Your task to perform on an android device: open app "Pinterest" Image 0: 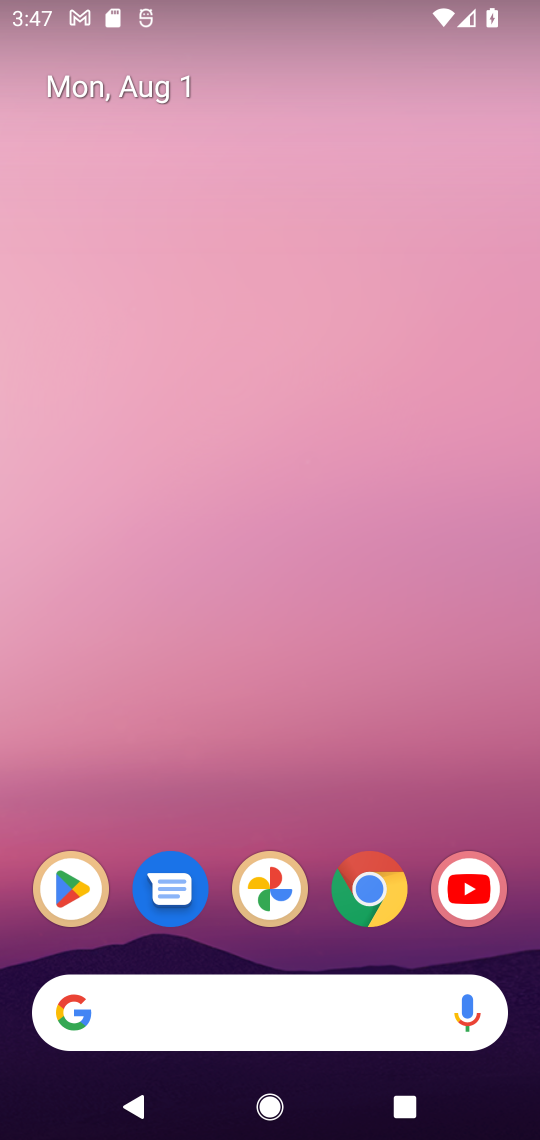
Step 0: click (85, 884)
Your task to perform on an android device: open app "Pinterest" Image 1: 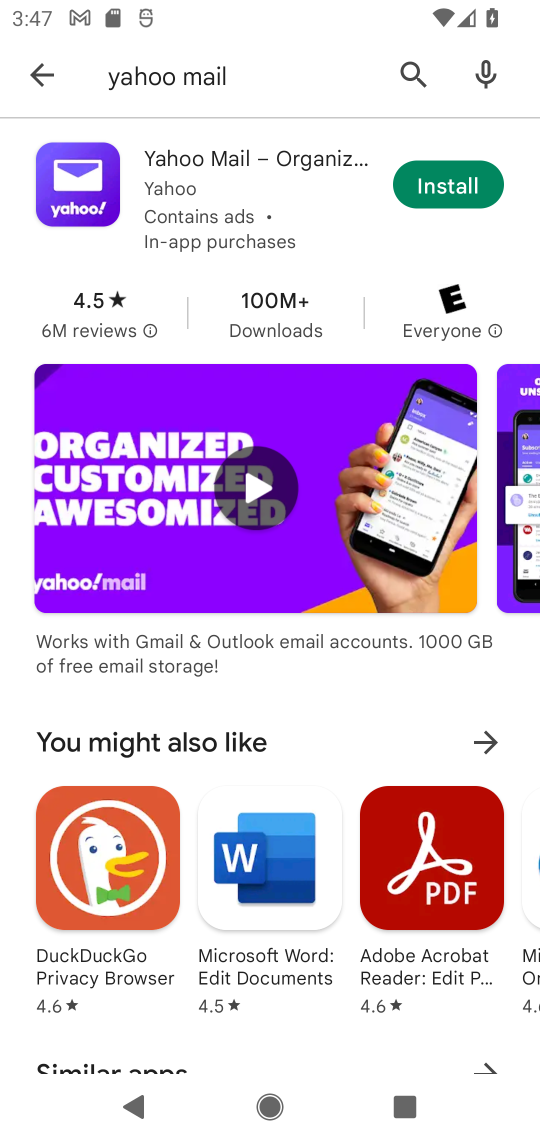
Step 1: click (415, 80)
Your task to perform on an android device: open app "Pinterest" Image 2: 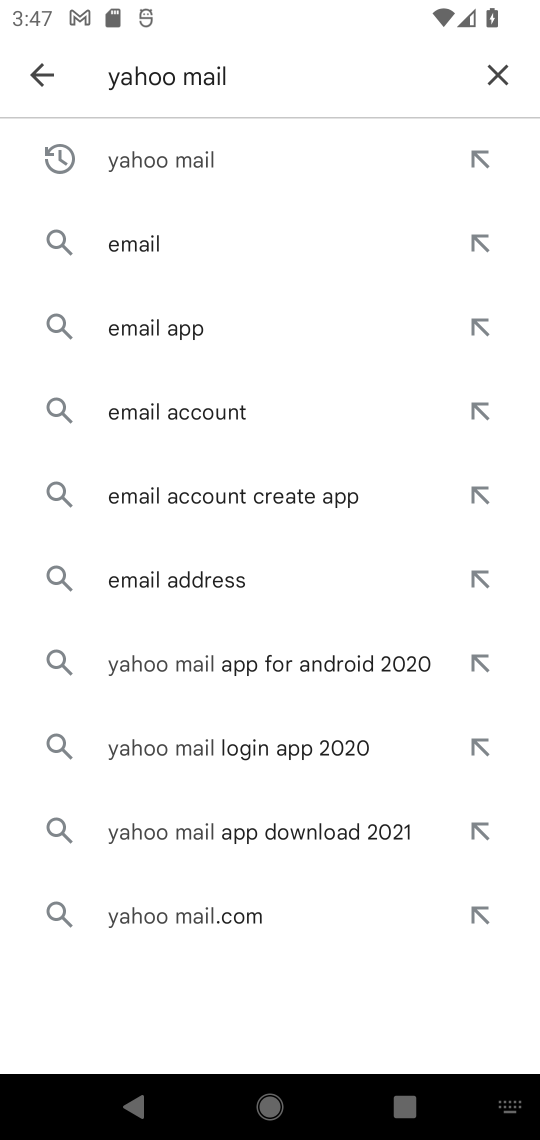
Step 2: click (502, 62)
Your task to perform on an android device: open app "Pinterest" Image 3: 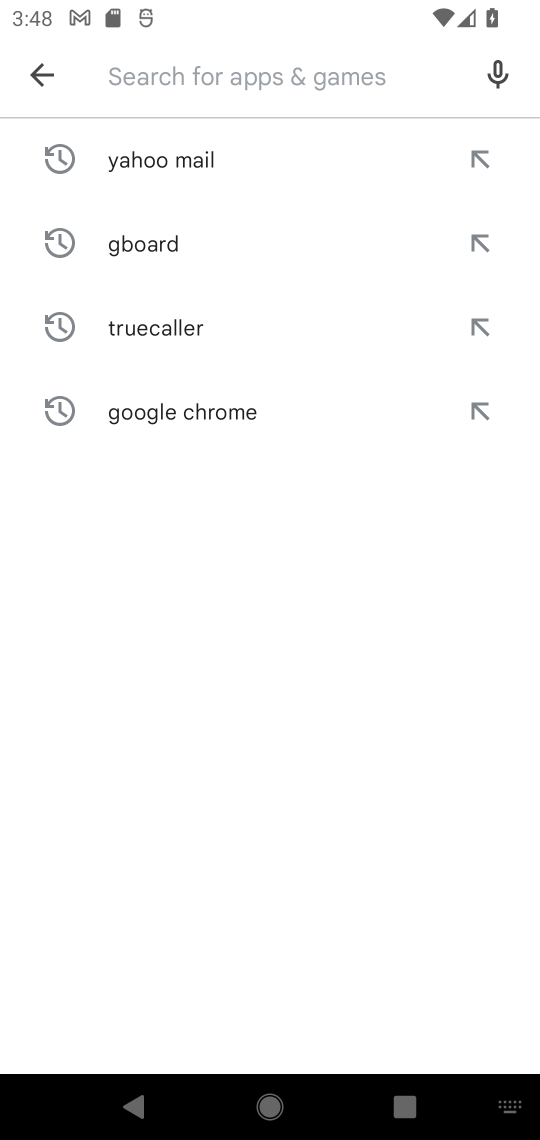
Step 3: type "Pinterest"
Your task to perform on an android device: open app "Pinterest" Image 4: 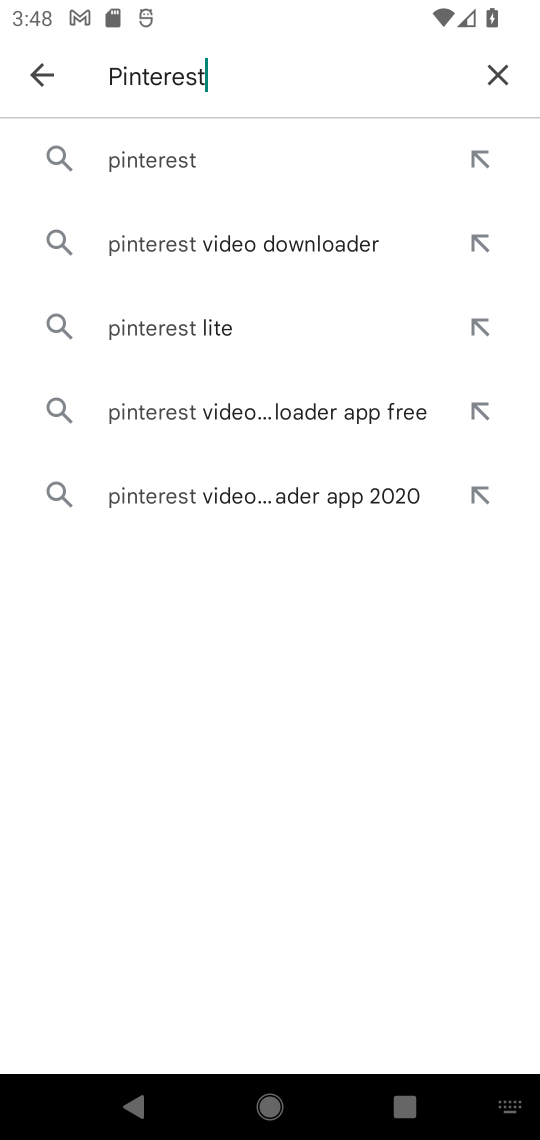
Step 4: click (174, 186)
Your task to perform on an android device: open app "Pinterest" Image 5: 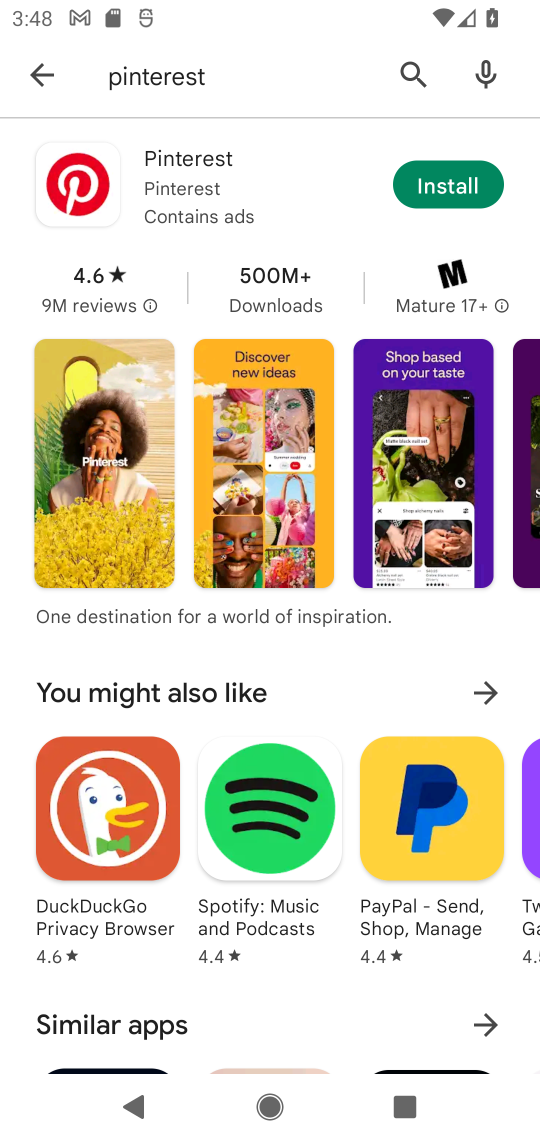
Step 5: task complete